Your task to perform on an android device: Open location settings Image 0: 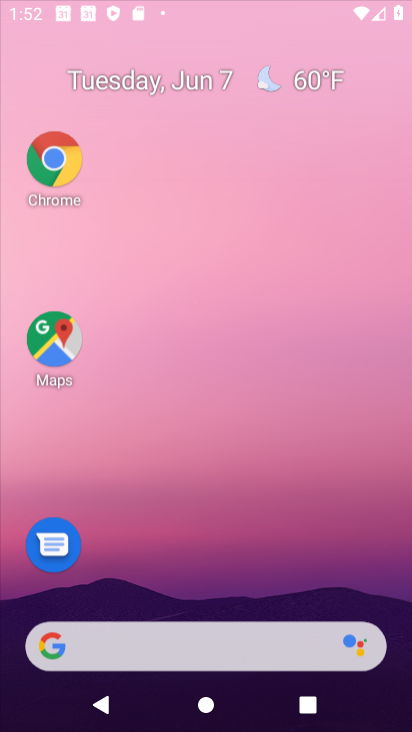
Step 0: click (327, 116)
Your task to perform on an android device: Open location settings Image 1: 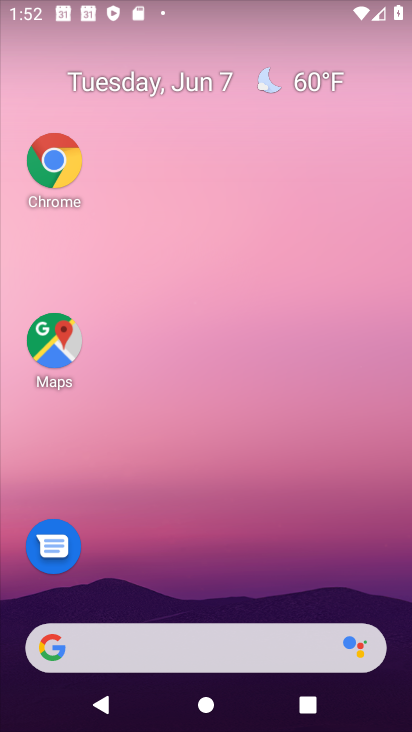
Step 1: drag from (224, 574) to (270, 65)
Your task to perform on an android device: Open location settings Image 2: 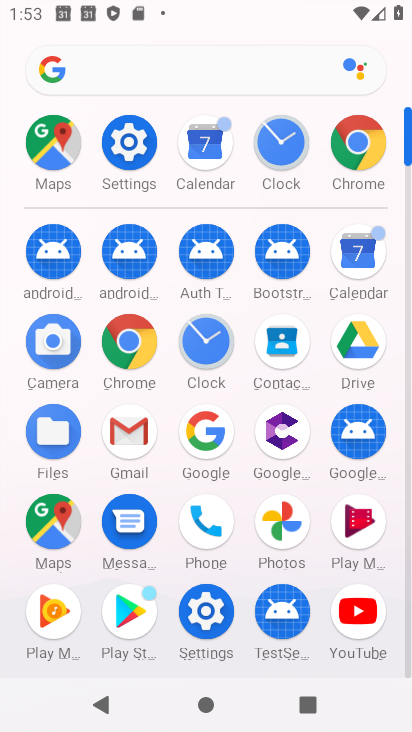
Step 2: click (131, 132)
Your task to perform on an android device: Open location settings Image 3: 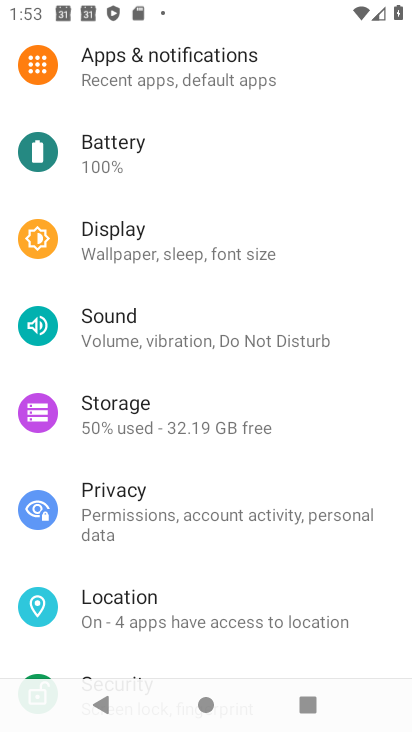
Step 3: click (153, 613)
Your task to perform on an android device: Open location settings Image 4: 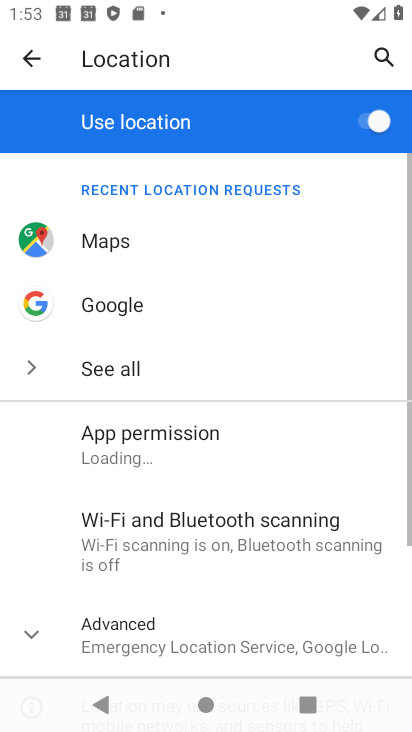
Step 4: task complete